Your task to perform on an android device: Open calendar and show me the second week of next month Image 0: 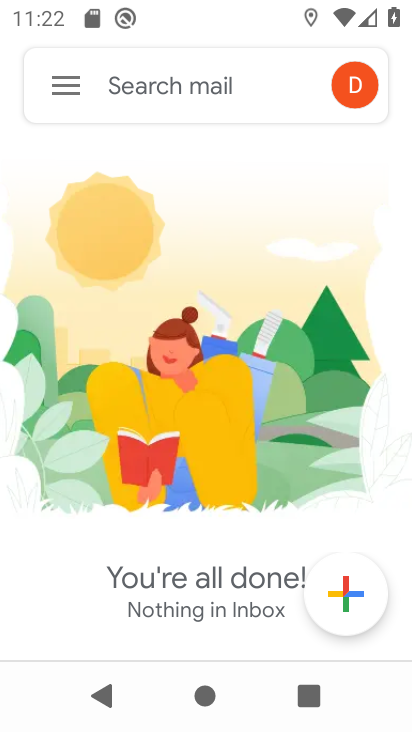
Step 0: press back button
Your task to perform on an android device: Open calendar and show me the second week of next month Image 1: 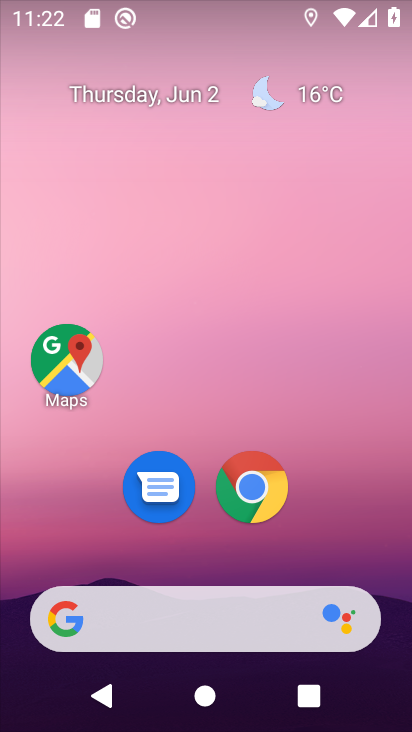
Step 1: drag from (348, 498) to (227, 80)
Your task to perform on an android device: Open calendar and show me the second week of next month Image 2: 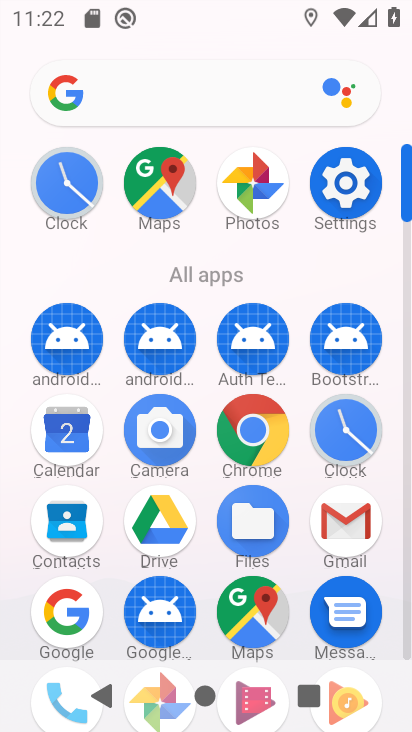
Step 2: click (67, 432)
Your task to perform on an android device: Open calendar and show me the second week of next month Image 3: 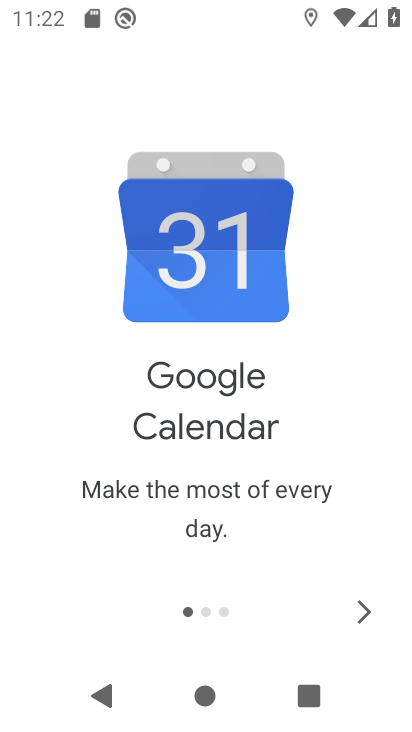
Step 3: click (366, 609)
Your task to perform on an android device: Open calendar and show me the second week of next month Image 4: 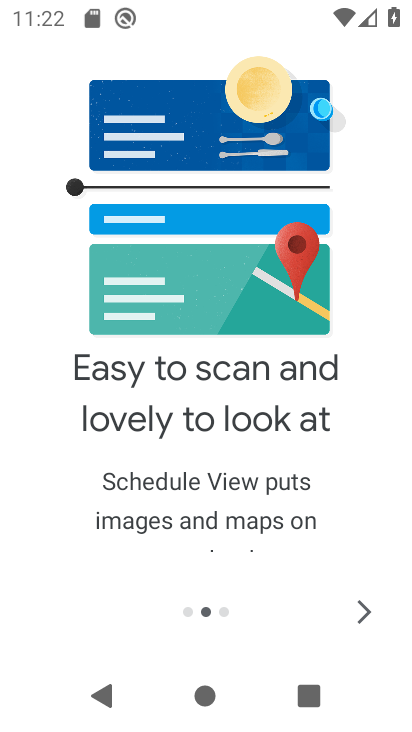
Step 4: click (366, 609)
Your task to perform on an android device: Open calendar and show me the second week of next month Image 5: 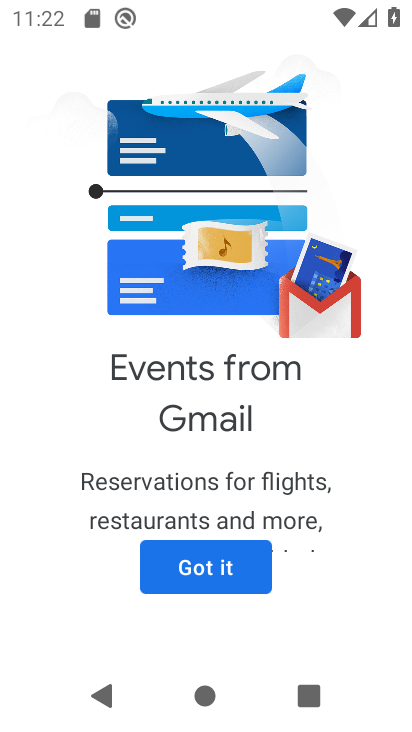
Step 5: click (210, 566)
Your task to perform on an android device: Open calendar and show me the second week of next month Image 6: 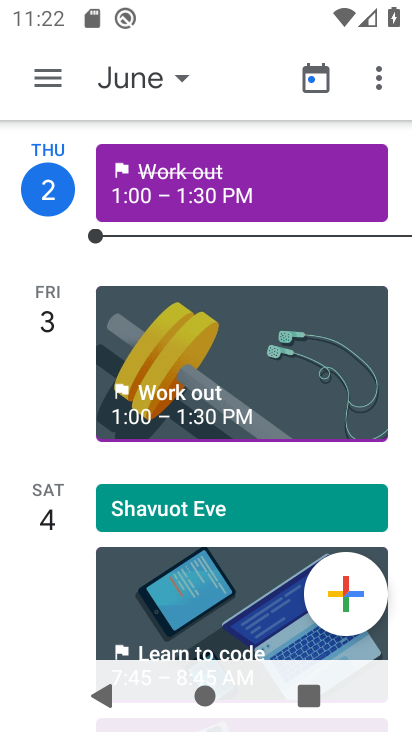
Step 6: click (182, 80)
Your task to perform on an android device: Open calendar and show me the second week of next month Image 7: 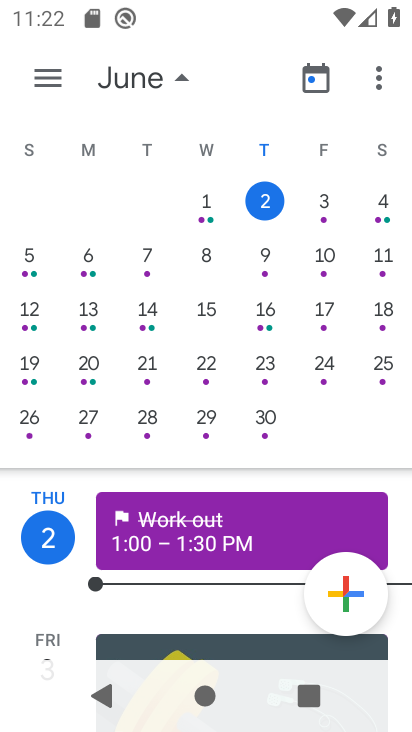
Step 7: drag from (396, 334) to (0, 276)
Your task to perform on an android device: Open calendar and show me the second week of next month Image 8: 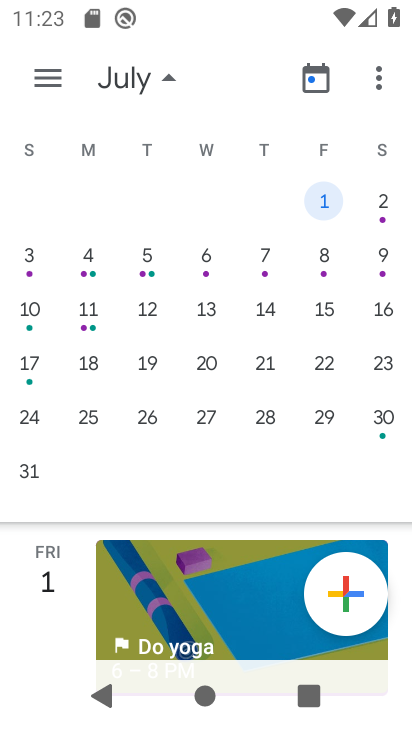
Step 8: click (88, 313)
Your task to perform on an android device: Open calendar and show me the second week of next month Image 9: 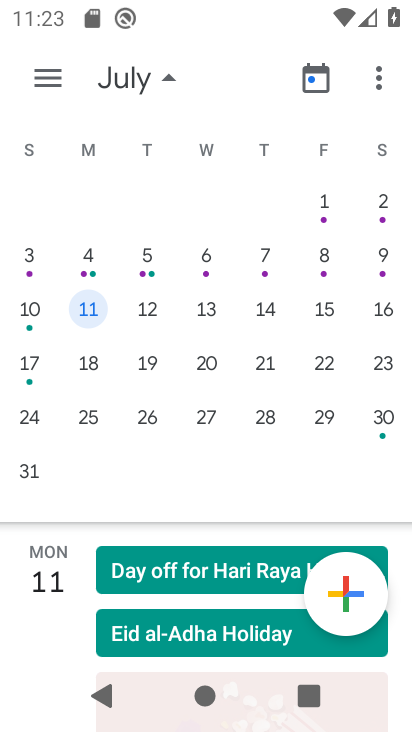
Step 9: click (47, 86)
Your task to perform on an android device: Open calendar and show me the second week of next month Image 10: 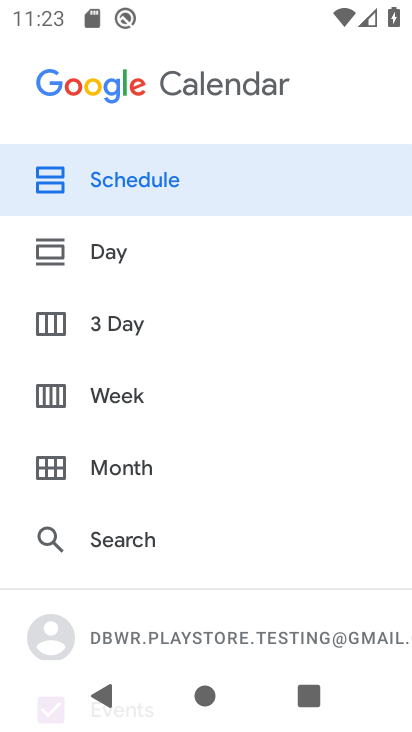
Step 10: click (122, 391)
Your task to perform on an android device: Open calendar and show me the second week of next month Image 11: 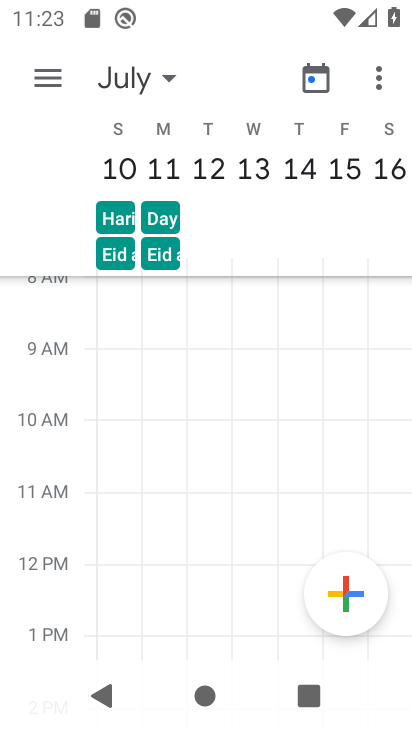
Step 11: task complete